Your task to perform on an android device: Go to eBay Image 0: 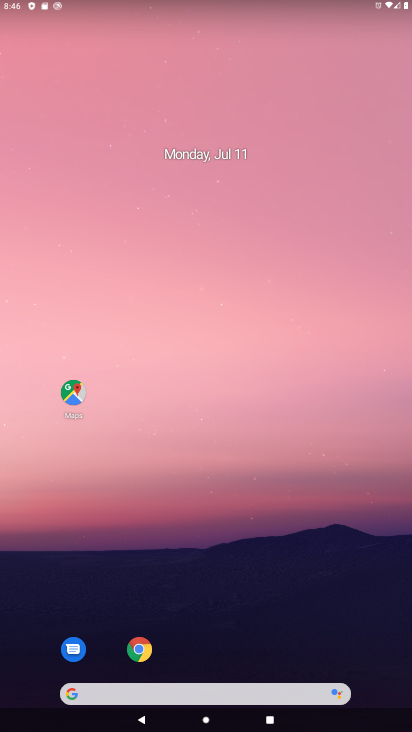
Step 0: click (139, 650)
Your task to perform on an android device: Go to eBay Image 1: 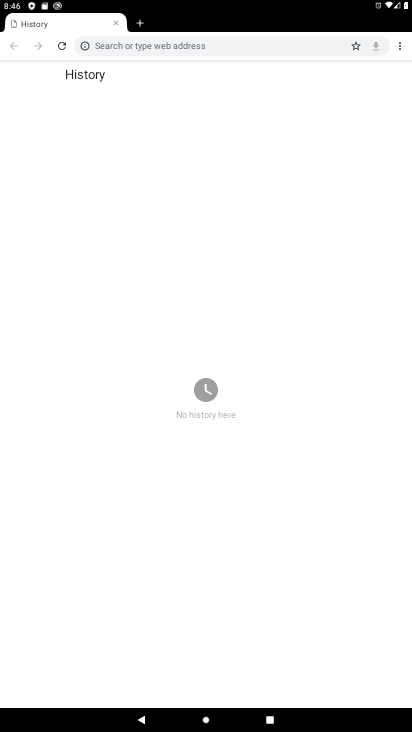
Step 1: click (270, 45)
Your task to perform on an android device: Go to eBay Image 2: 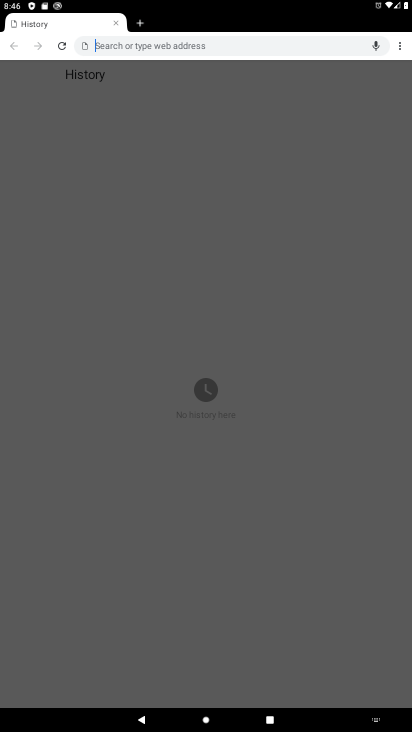
Step 2: type "eBay"
Your task to perform on an android device: Go to eBay Image 3: 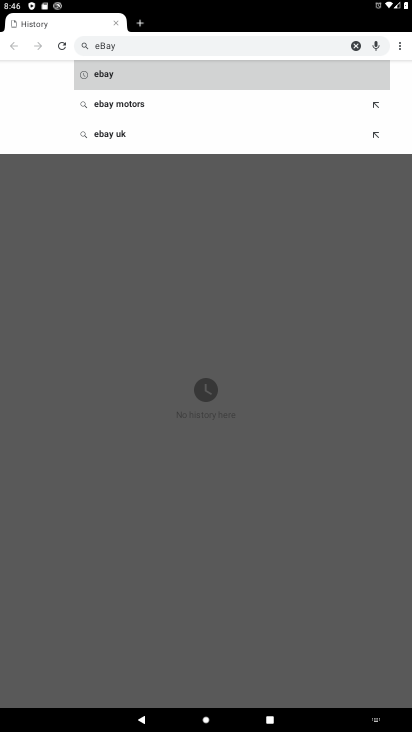
Step 3: click (120, 75)
Your task to perform on an android device: Go to eBay Image 4: 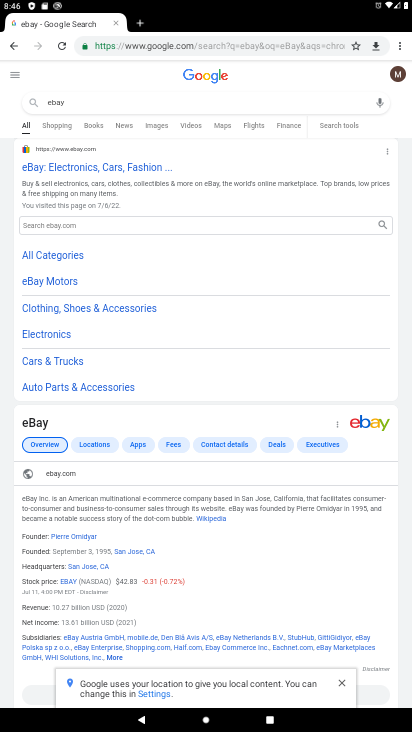
Step 4: click (40, 427)
Your task to perform on an android device: Go to eBay Image 5: 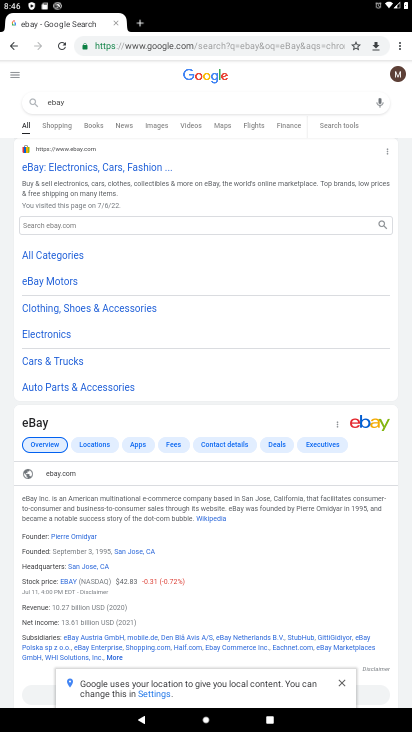
Step 5: click (36, 418)
Your task to perform on an android device: Go to eBay Image 6: 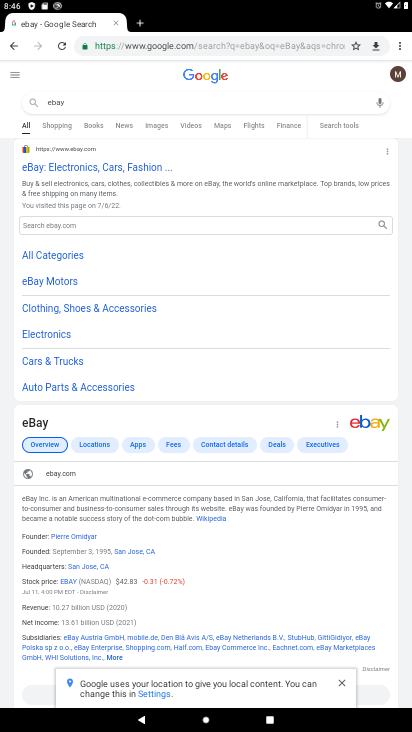
Step 6: click (99, 166)
Your task to perform on an android device: Go to eBay Image 7: 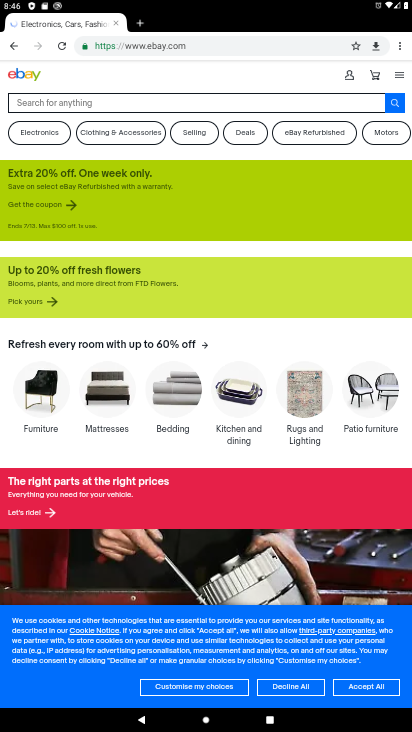
Step 7: task complete